Your task to perform on an android device: Open Google Chrome and open the bookmarks view Image 0: 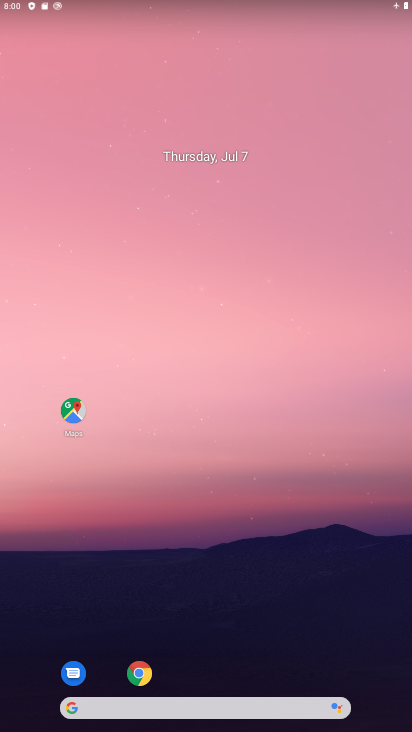
Step 0: drag from (190, 684) to (193, 3)
Your task to perform on an android device: Open Google Chrome and open the bookmarks view Image 1: 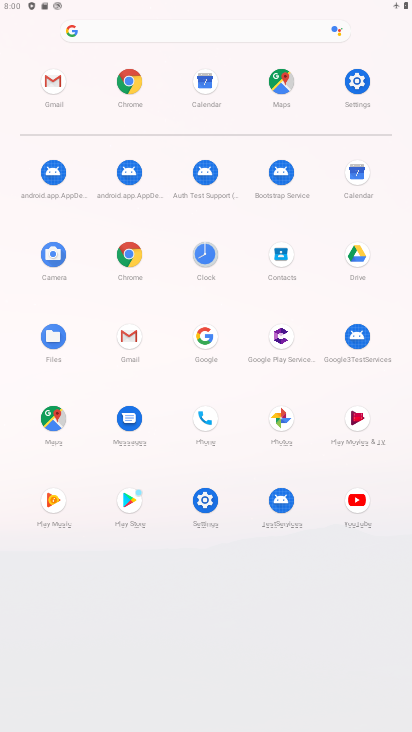
Step 1: click (132, 260)
Your task to perform on an android device: Open Google Chrome and open the bookmarks view Image 2: 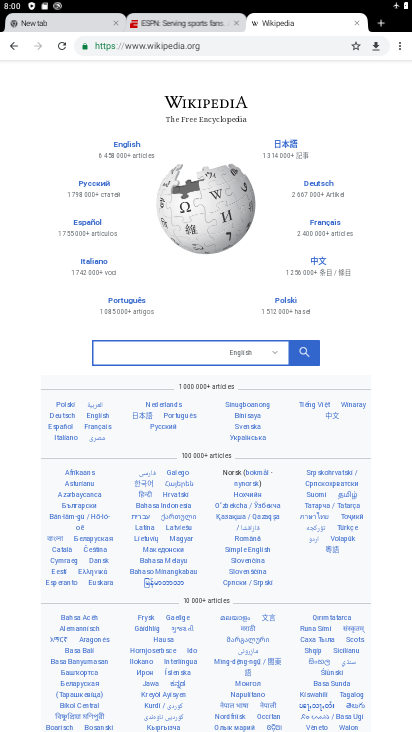
Step 2: click (400, 47)
Your task to perform on an android device: Open Google Chrome and open the bookmarks view Image 3: 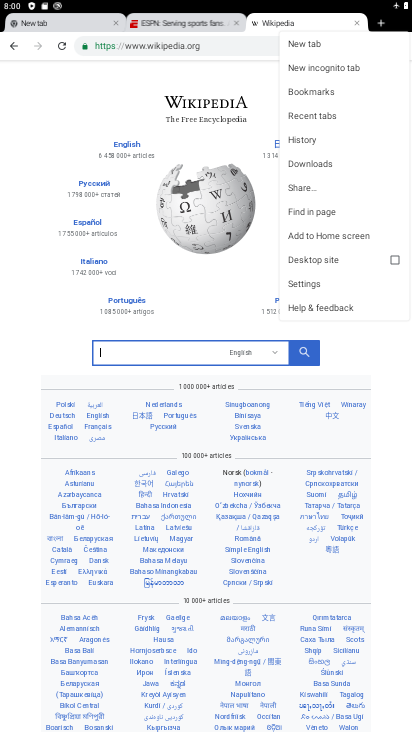
Step 3: click (304, 94)
Your task to perform on an android device: Open Google Chrome and open the bookmarks view Image 4: 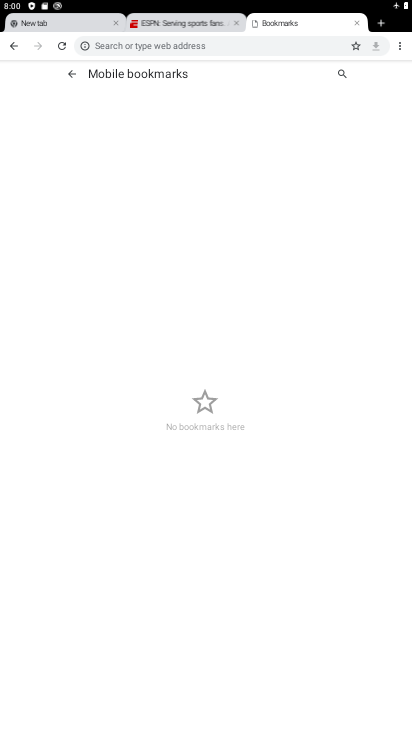
Step 4: task complete